Your task to perform on an android device: check data usage Image 0: 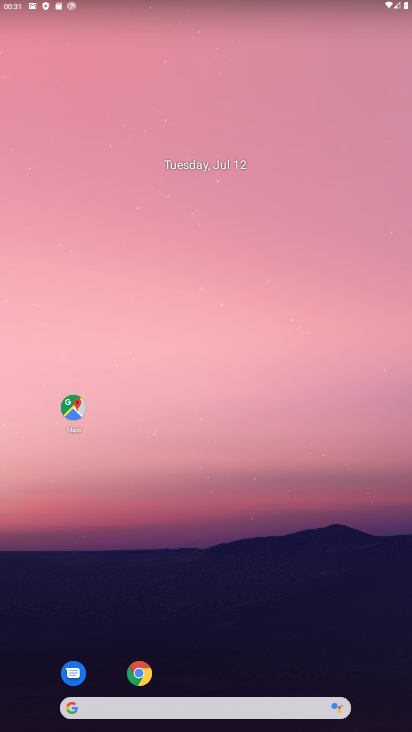
Step 0: press home button
Your task to perform on an android device: check data usage Image 1: 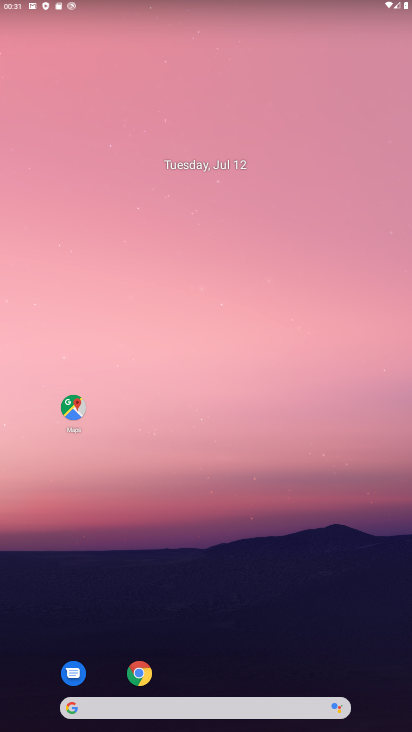
Step 1: drag from (250, 603) to (325, 70)
Your task to perform on an android device: check data usage Image 2: 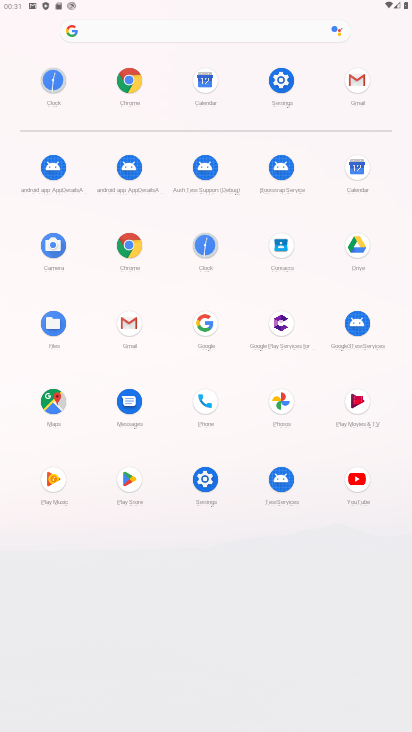
Step 2: click (279, 71)
Your task to perform on an android device: check data usage Image 3: 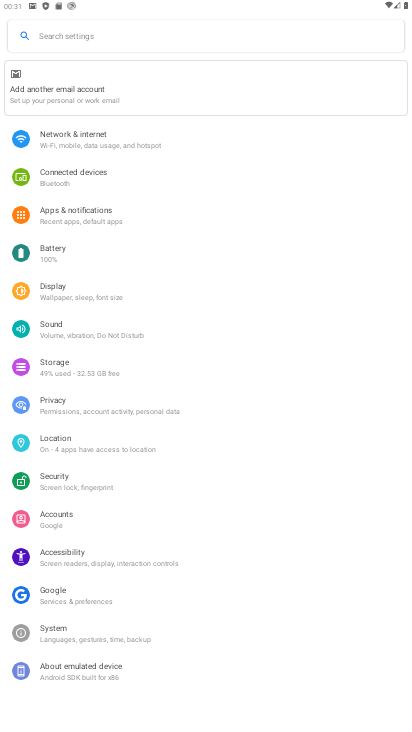
Step 3: click (105, 133)
Your task to perform on an android device: check data usage Image 4: 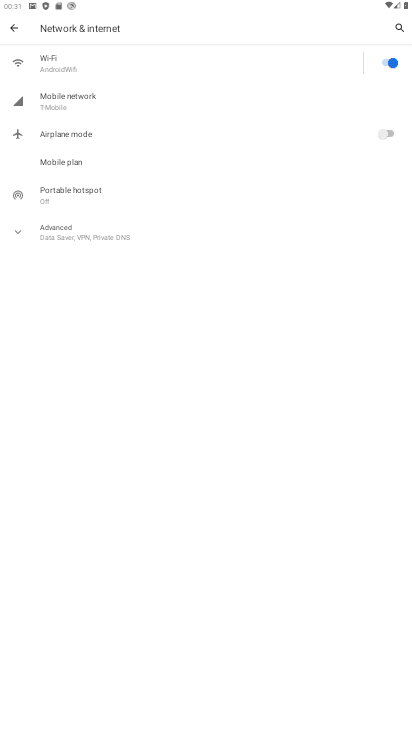
Step 4: click (94, 106)
Your task to perform on an android device: check data usage Image 5: 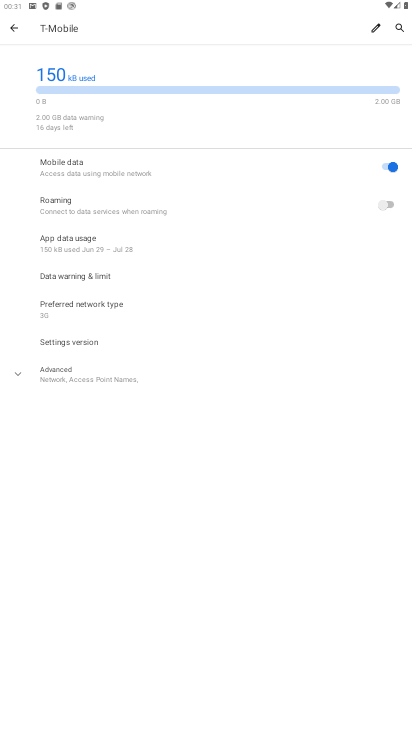
Step 5: task complete